Your task to perform on an android device: see sites visited before in the chrome app Image 0: 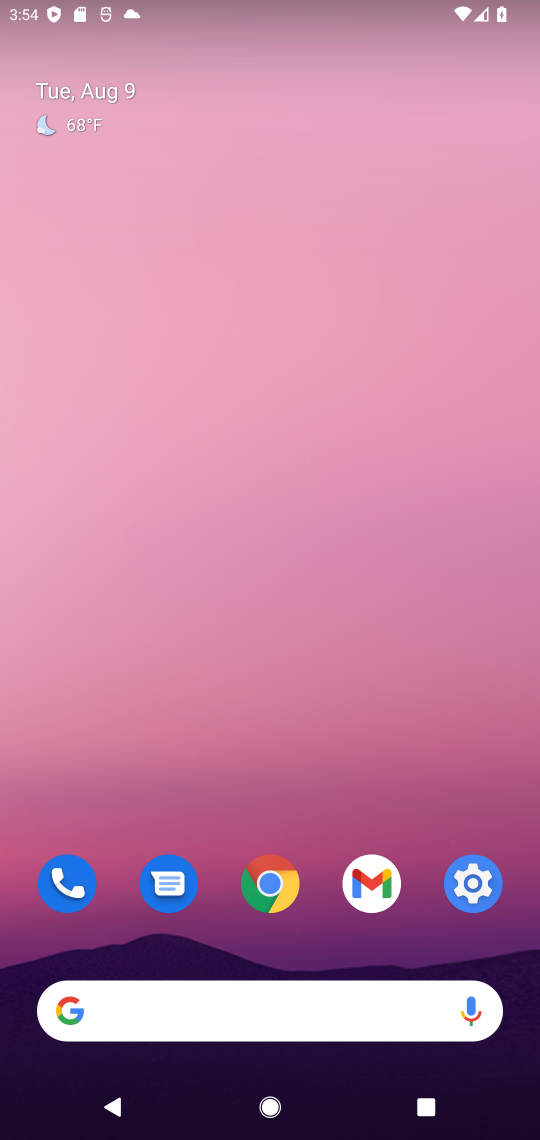
Step 0: drag from (339, 1036) to (212, 270)
Your task to perform on an android device: see sites visited before in the chrome app Image 1: 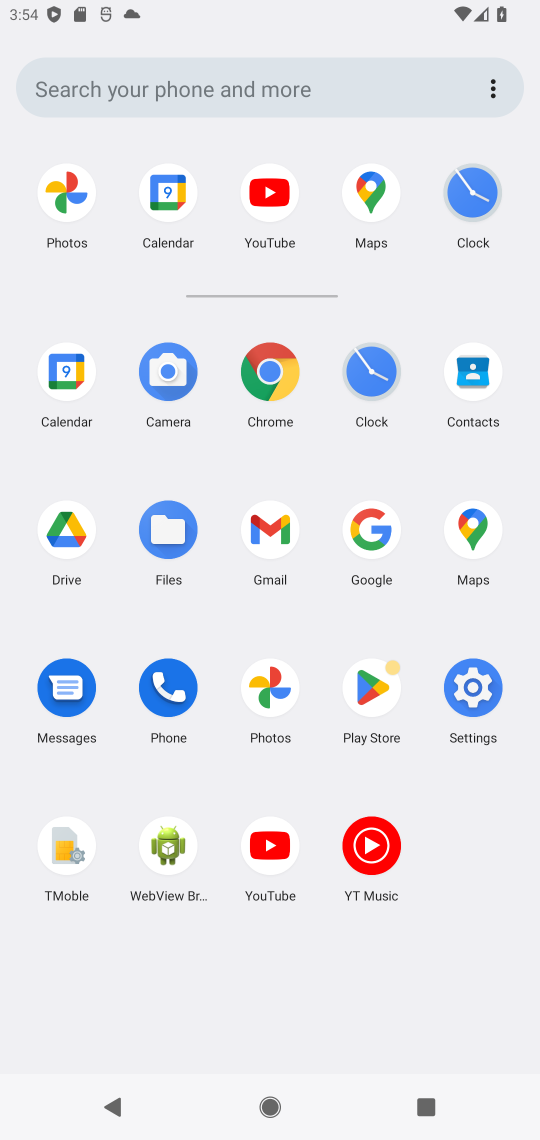
Step 1: click (258, 404)
Your task to perform on an android device: see sites visited before in the chrome app Image 2: 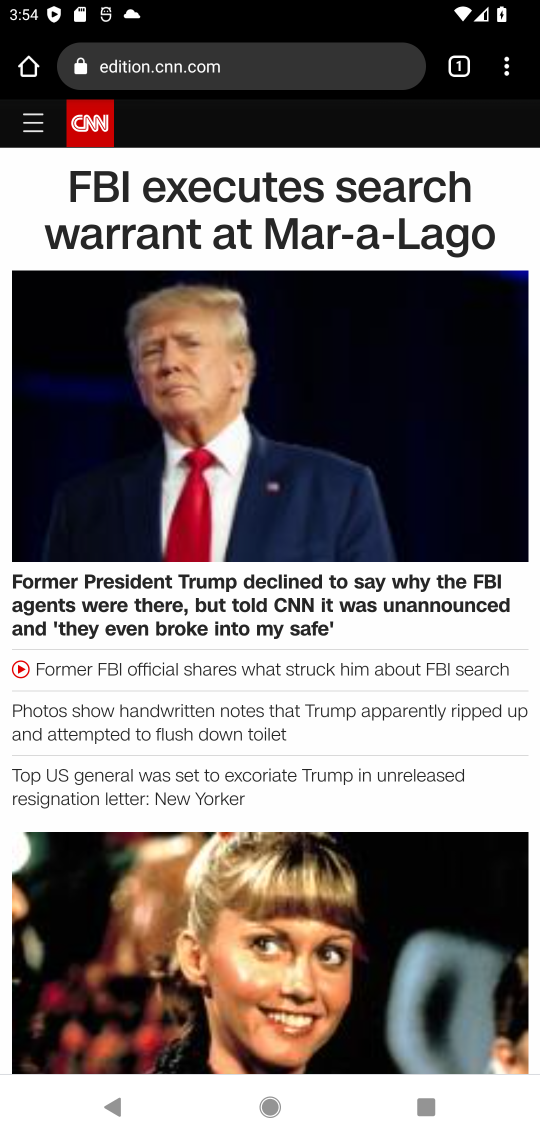
Step 2: click (491, 97)
Your task to perform on an android device: see sites visited before in the chrome app Image 3: 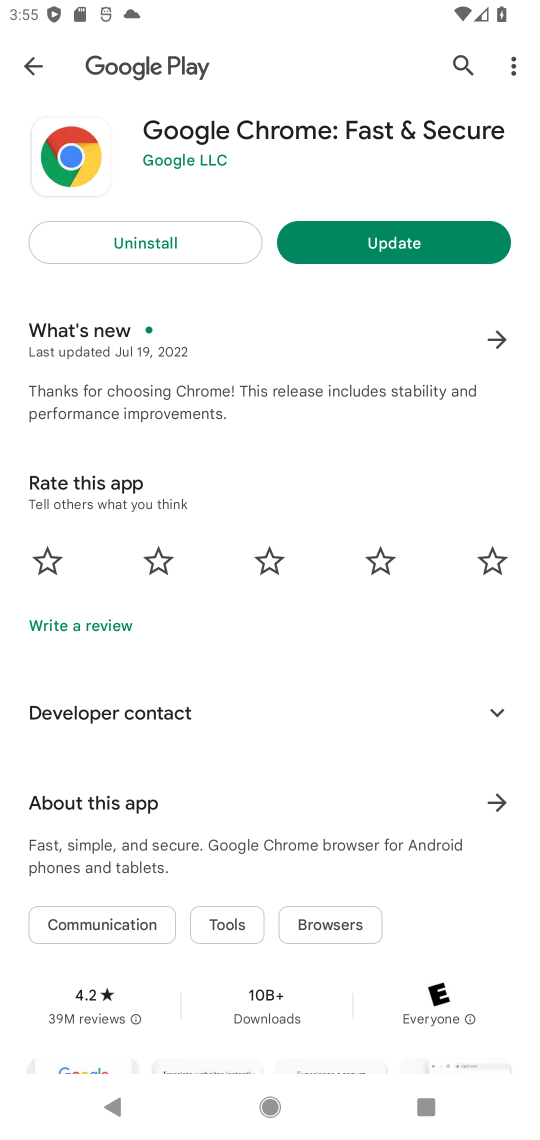
Step 3: press back button
Your task to perform on an android device: see sites visited before in the chrome app Image 4: 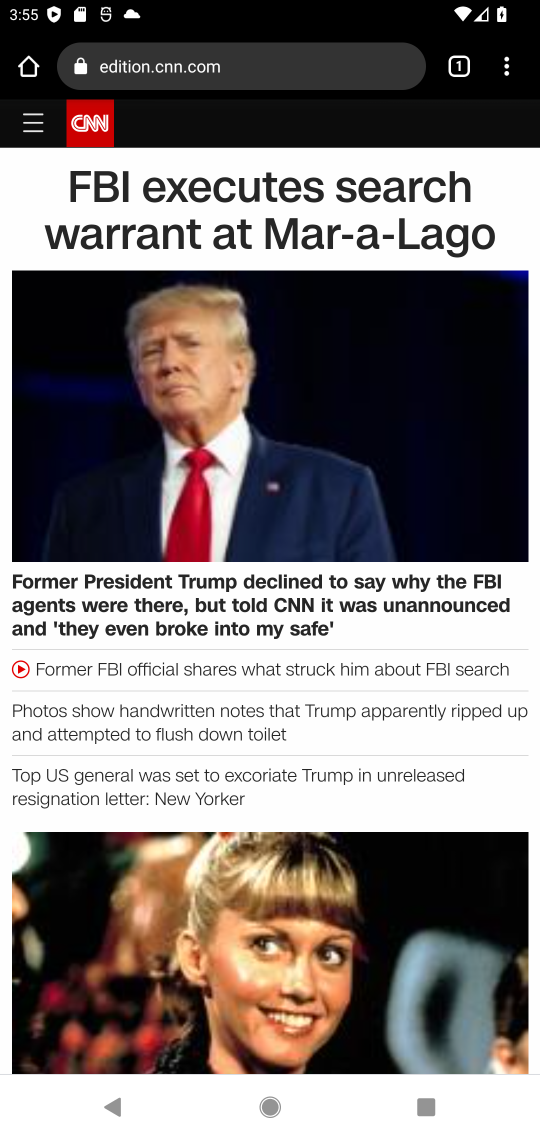
Step 4: click (506, 75)
Your task to perform on an android device: see sites visited before in the chrome app Image 5: 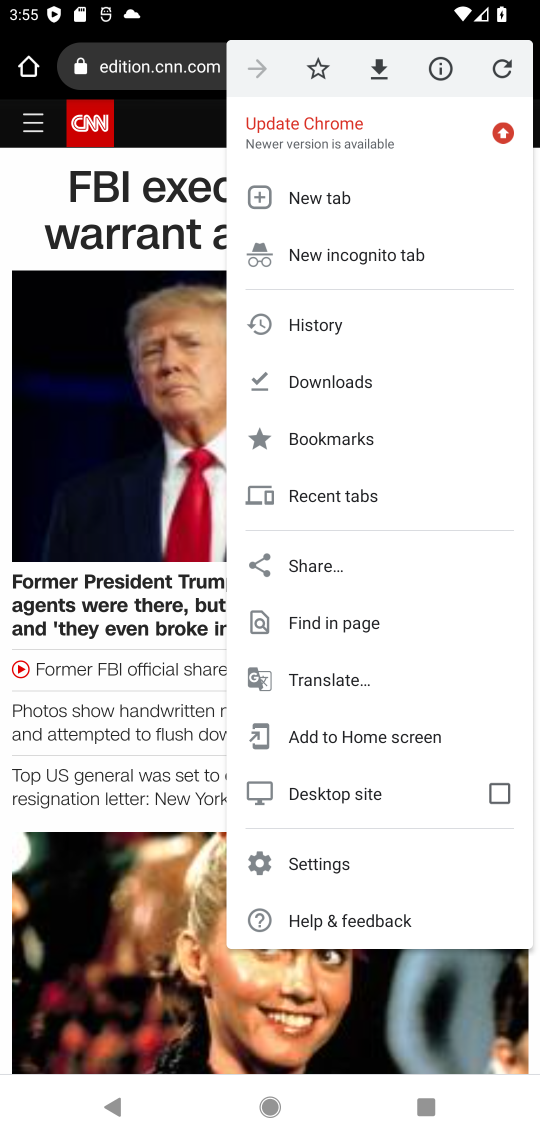
Step 5: click (303, 865)
Your task to perform on an android device: see sites visited before in the chrome app Image 6: 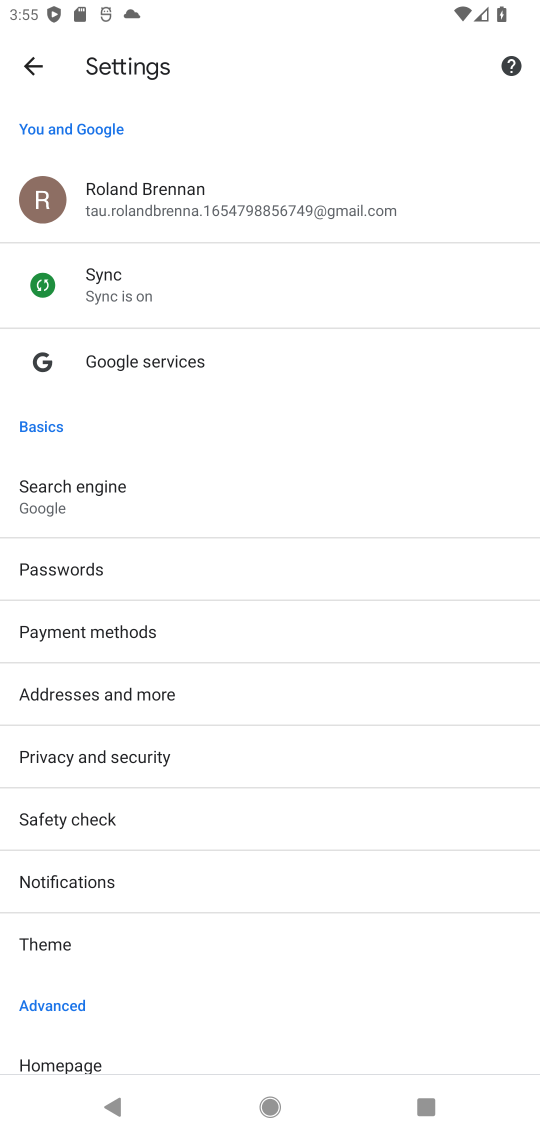
Step 6: drag from (161, 899) to (159, 719)
Your task to perform on an android device: see sites visited before in the chrome app Image 7: 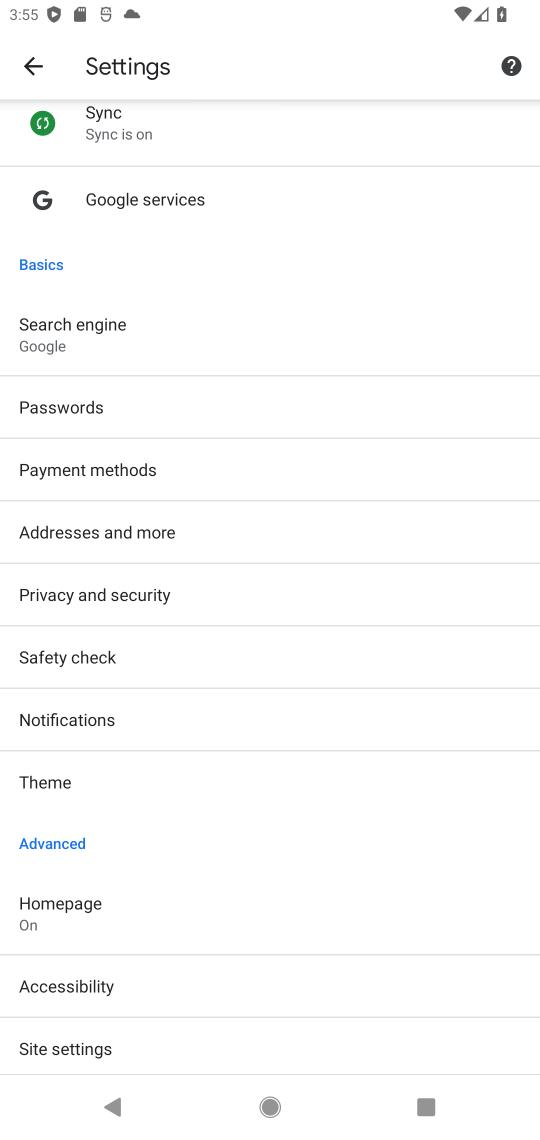
Step 7: click (83, 1051)
Your task to perform on an android device: see sites visited before in the chrome app Image 8: 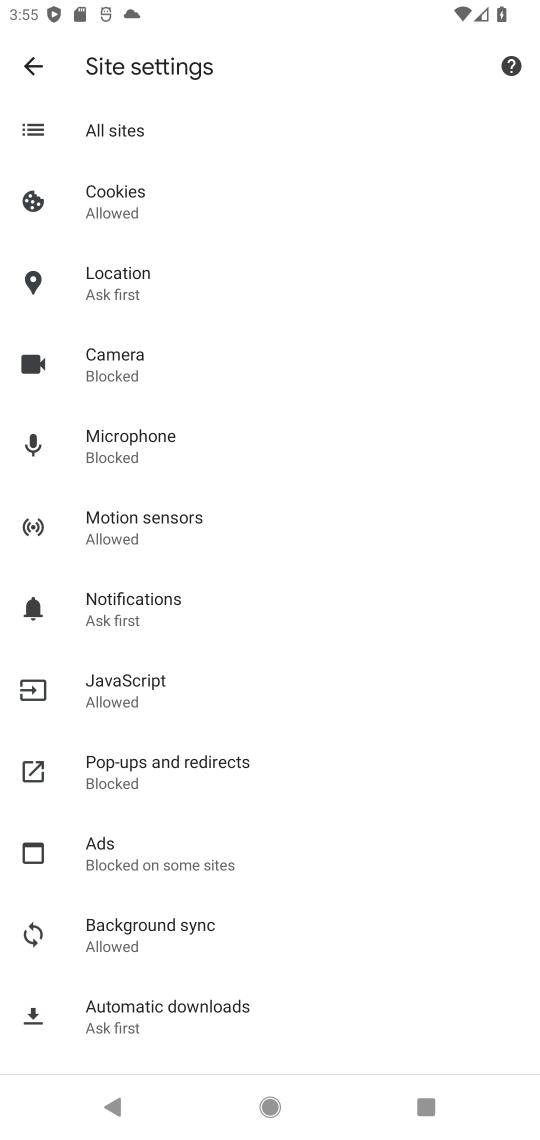
Step 8: click (153, 138)
Your task to perform on an android device: see sites visited before in the chrome app Image 9: 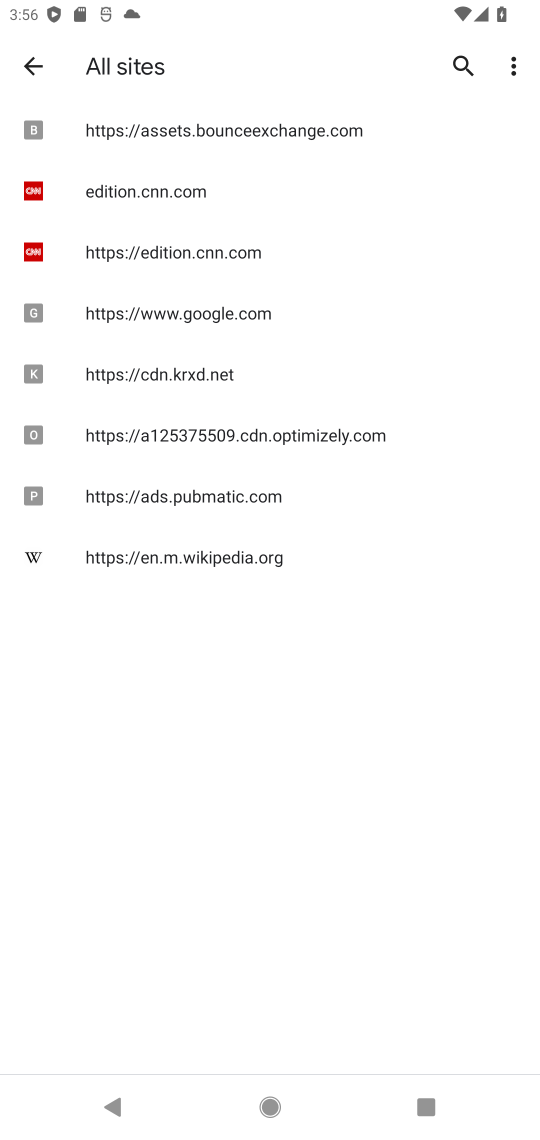
Step 9: task complete